Your task to perform on an android device: stop showing notifications on the lock screen Image 0: 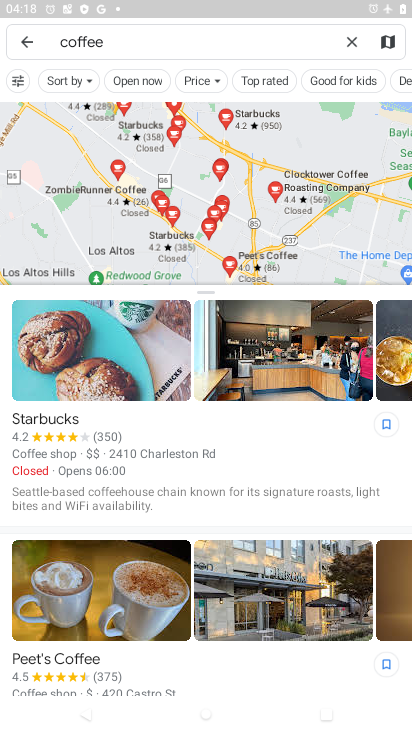
Step 0: press home button
Your task to perform on an android device: stop showing notifications on the lock screen Image 1: 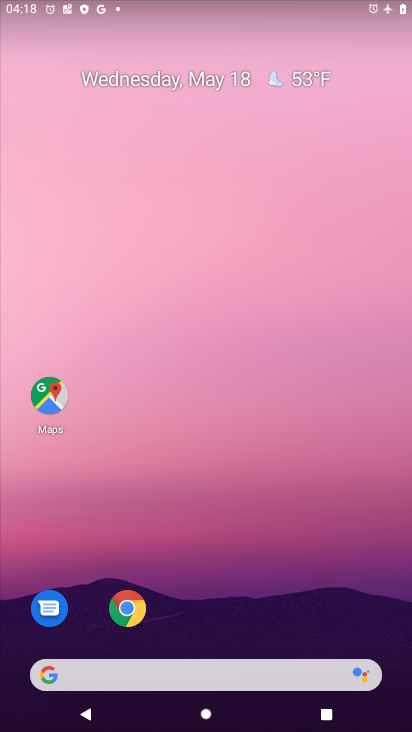
Step 1: drag from (266, 627) to (342, 25)
Your task to perform on an android device: stop showing notifications on the lock screen Image 2: 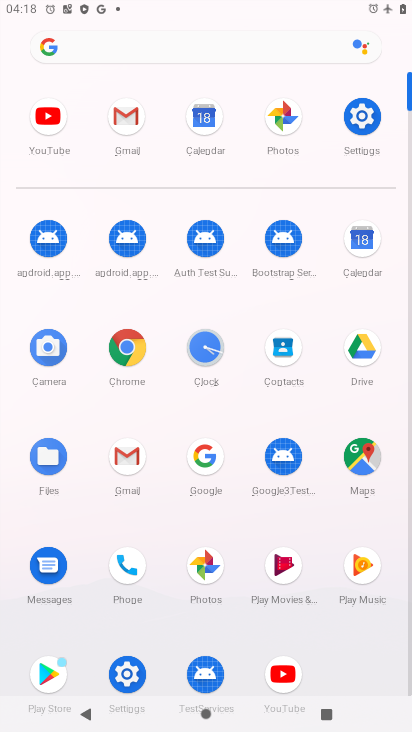
Step 2: click (366, 111)
Your task to perform on an android device: stop showing notifications on the lock screen Image 3: 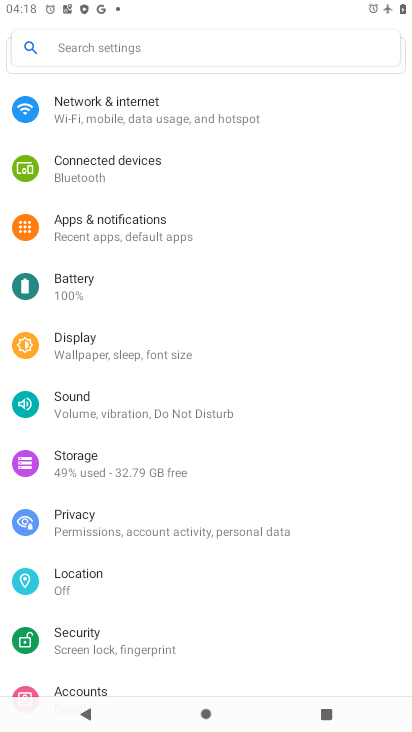
Step 3: click (128, 237)
Your task to perform on an android device: stop showing notifications on the lock screen Image 4: 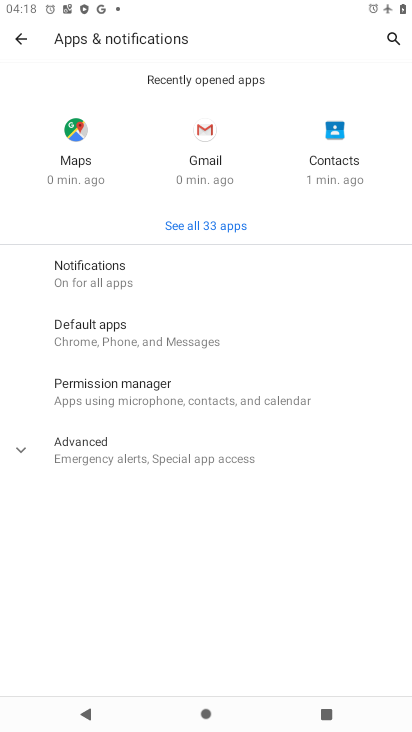
Step 4: click (95, 280)
Your task to perform on an android device: stop showing notifications on the lock screen Image 5: 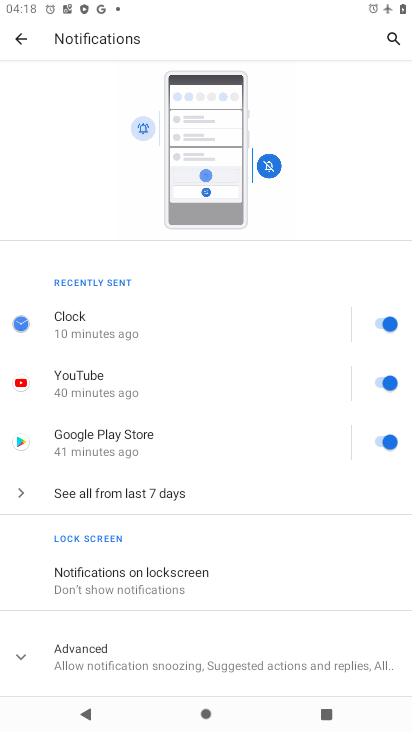
Step 5: click (131, 575)
Your task to perform on an android device: stop showing notifications on the lock screen Image 6: 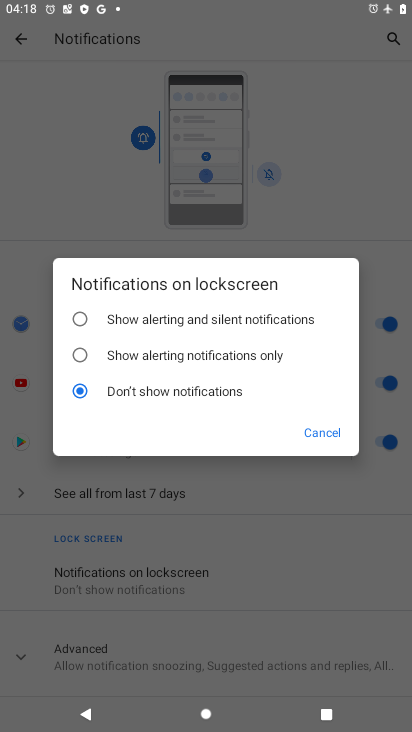
Step 6: task complete